Your task to perform on an android device: Open Android settings Image 0: 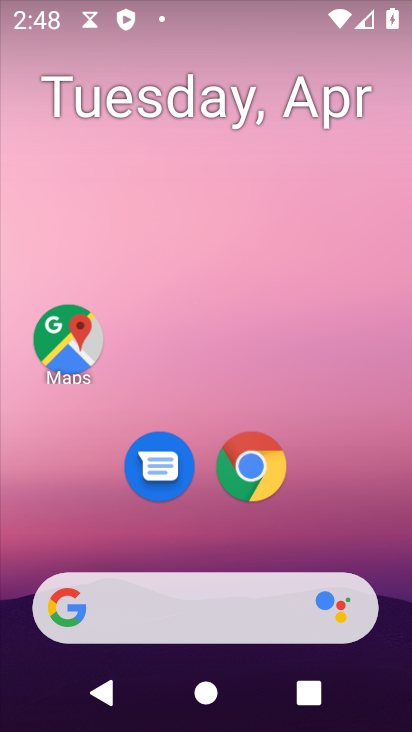
Step 0: drag from (358, 473) to (268, 31)
Your task to perform on an android device: Open Android settings Image 1: 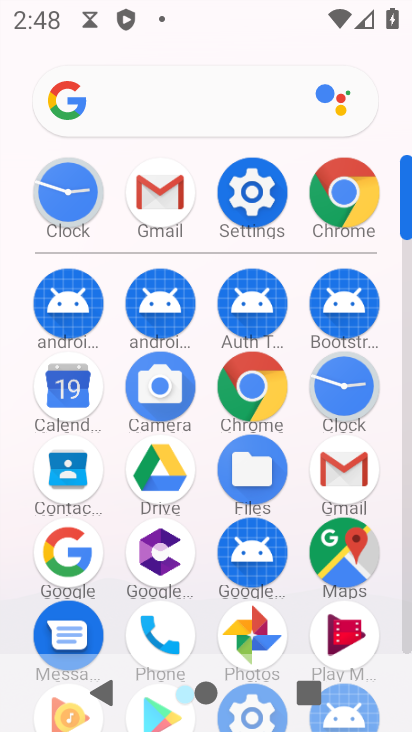
Step 1: drag from (1, 369) to (0, 160)
Your task to perform on an android device: Open Android settings Image 2: 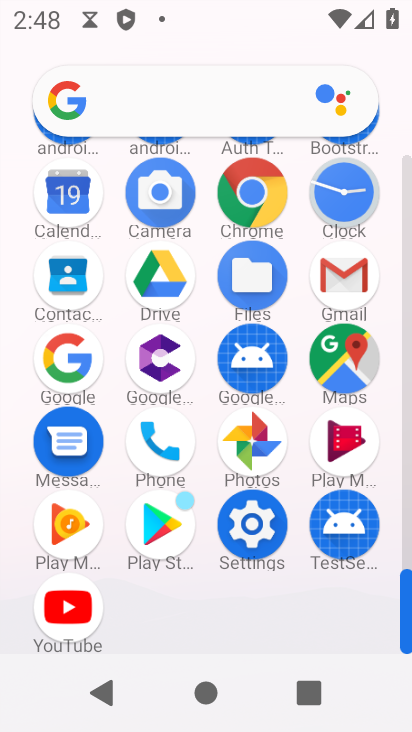
Step 2: click (247, 523)
Your task to perform on an android device: Open Android settings Image 3: 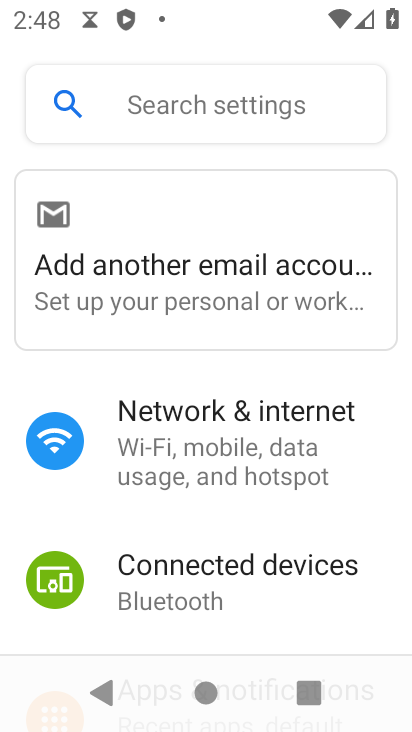
Step 3: task complete